Your task to perform on an android device: set default search engine in the chrome app Image 0: 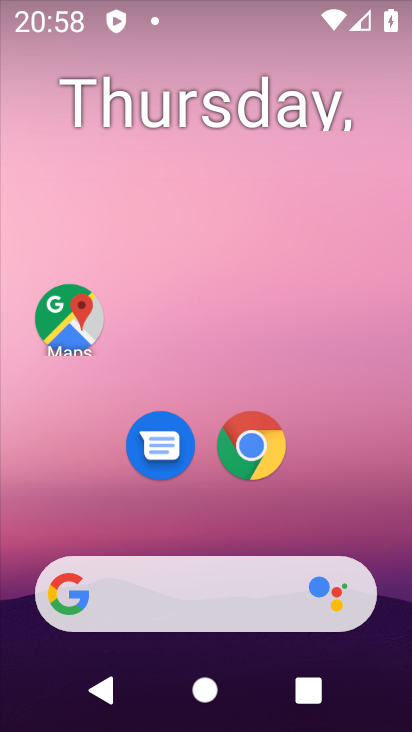
Step 0: press home button
Your task to perform on an android device: set default search engine in the chrome app Image 1: 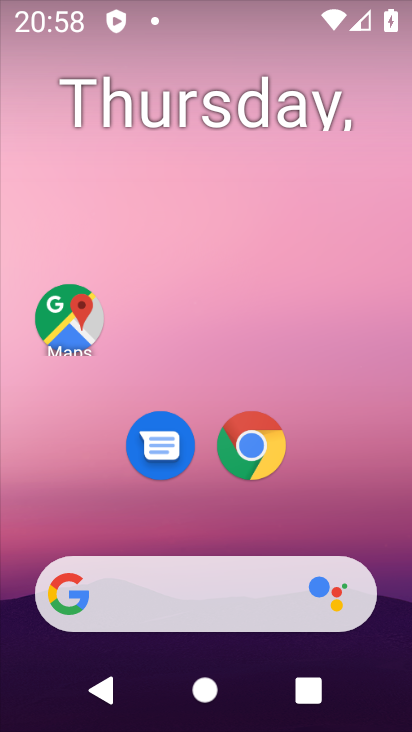
Step 1: click (239, 446)
Your task to perform on an android device: set default search engine in the chrome app Image 2: 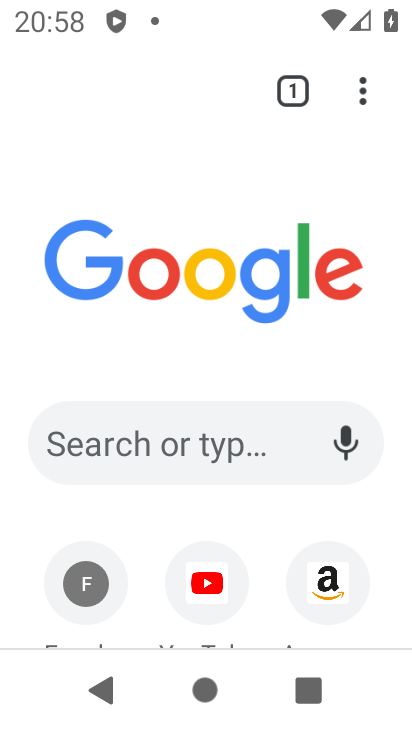
Step 2: click (365, 83)
Your task to perform on an android device: set default search engine in the chrome app Image 3: 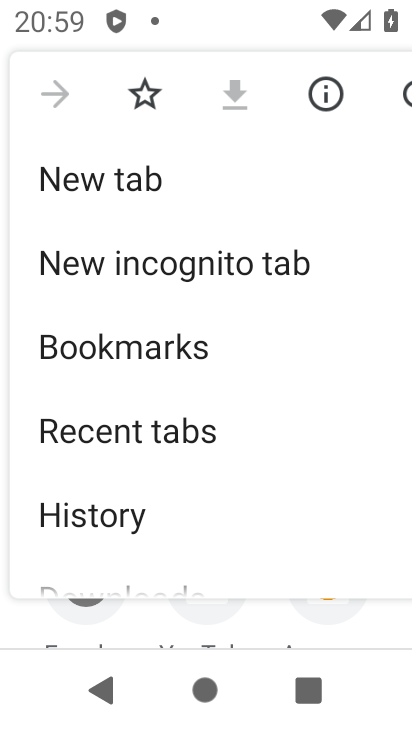
Step 3: drag from (11, 506) to (248, 43)
Your task to perform on an android device: set default search engine in the chrome app Image 4: 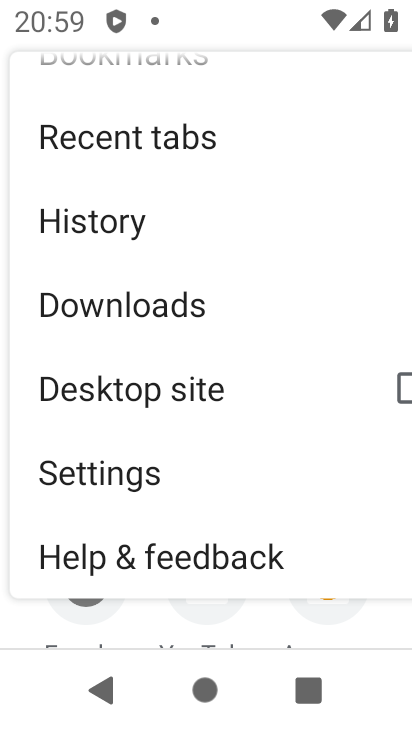
Step 4: click (72, 492)
Your task to perform on an android device: set default search engine in the chrome app Image 5: 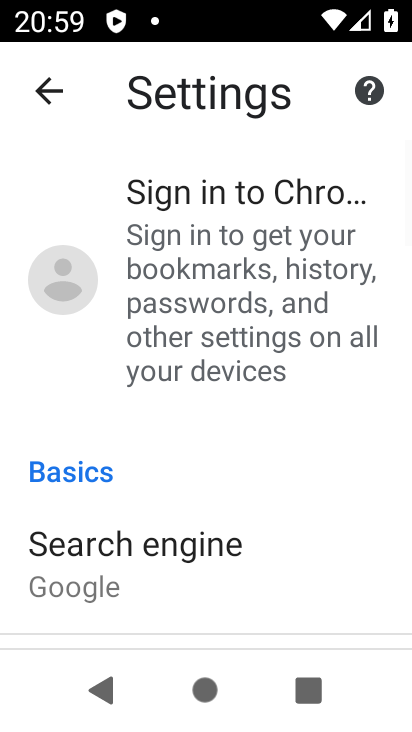
Step 5: click (55, 573)
Your task to perform on an android device: set default search engine in the chrome app Image 6: 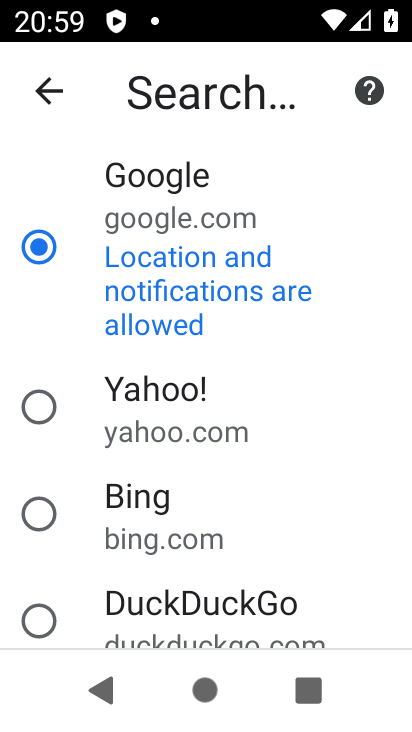
Step 6: task complete